Your task to perform on an android device: Open ESPN.com Image 0: 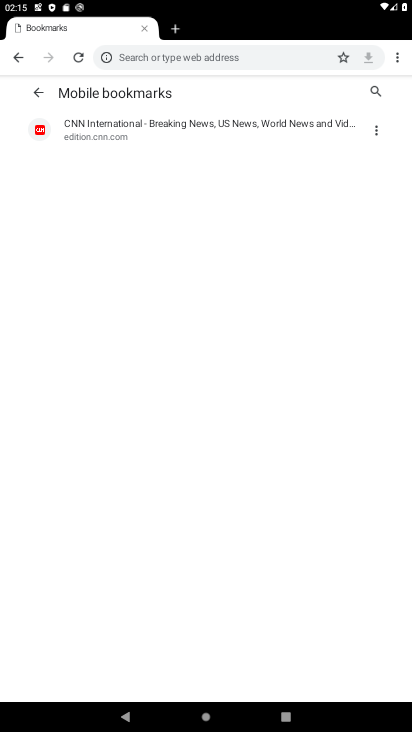
Step 0: press home button
Your task to perform on an android device: Open ESPN.com Image 1: 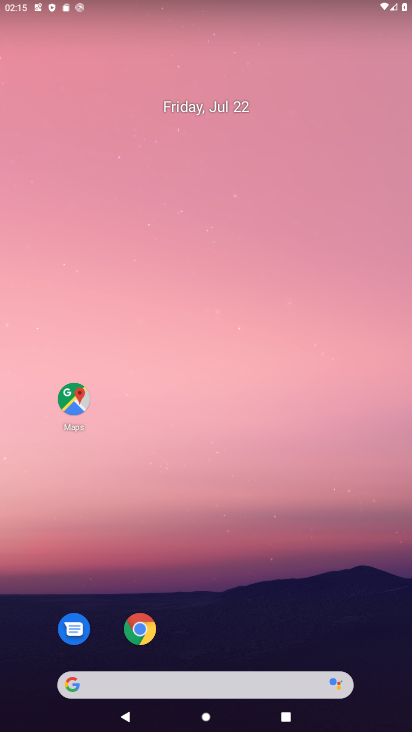
Step 1: click (128, 634)
Your task to perform on an android device: Open ESPN.com Image 2: 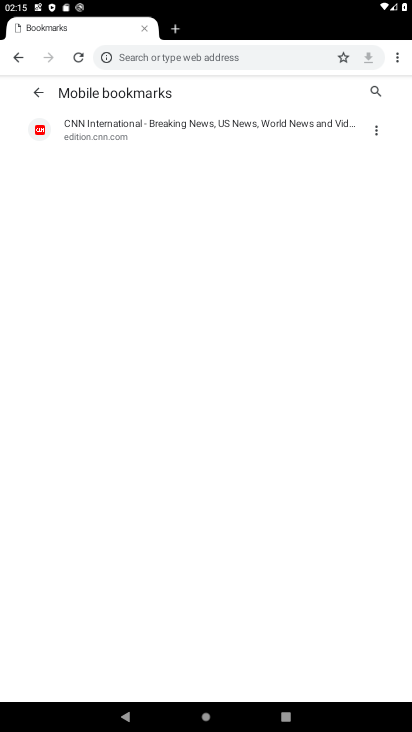
Step 2: click (25, 56)
Your task to perform on an android device: Open ESPN.com Image 3: 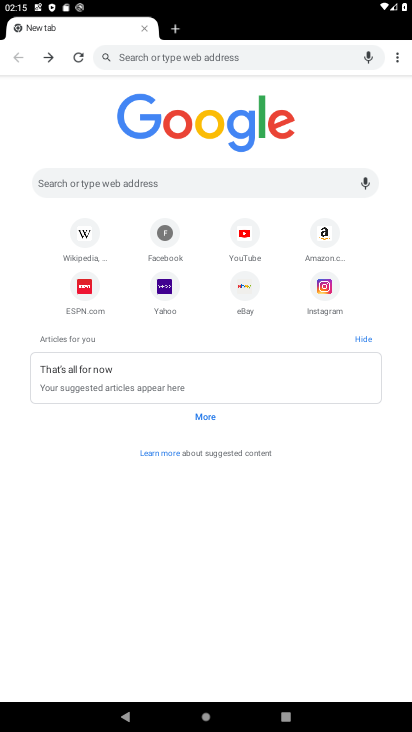
Step 3: click (91, 285)
Your task to perform on an android device: Open ESPN.com Image 4: 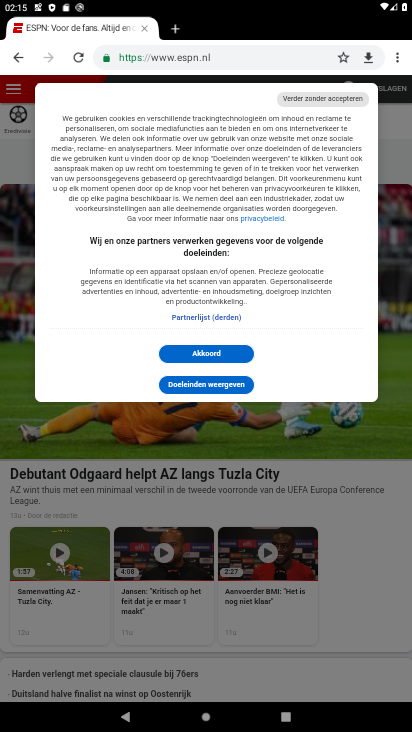
Step 4: task complete